Your task to perform on an android device: move an email to a new category in the gmail app Image 0: 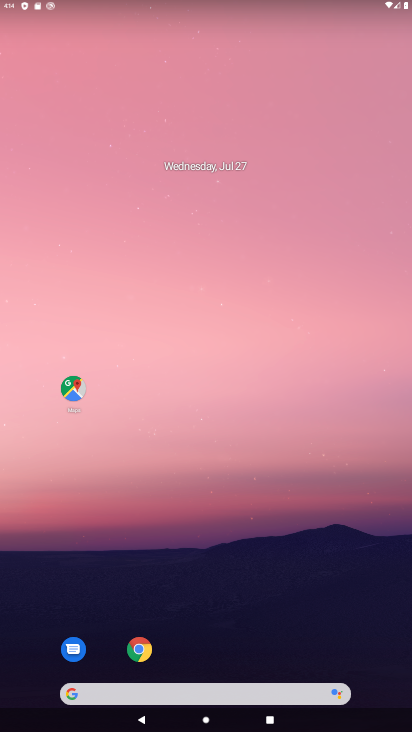
Step 0: drag from (205, 603) to (198, 295)
Your task to perform on an android device: move an email to a new category in the gmail app Image 1: 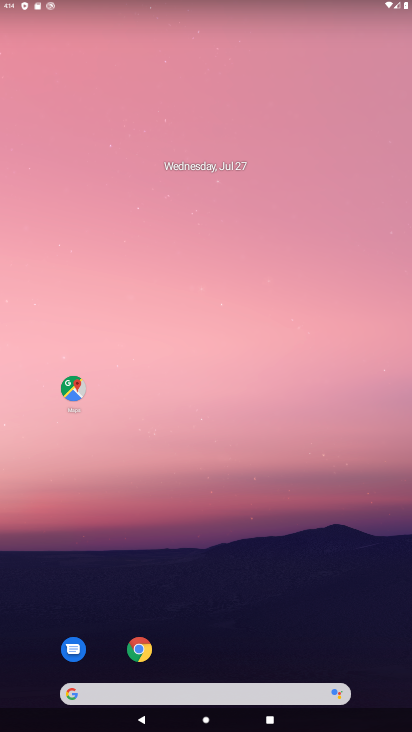
Step 1: drag from (205, 568) to (216, 70)
Your task to perform on an android device: move an email to a new category in the gmail app Image 2: 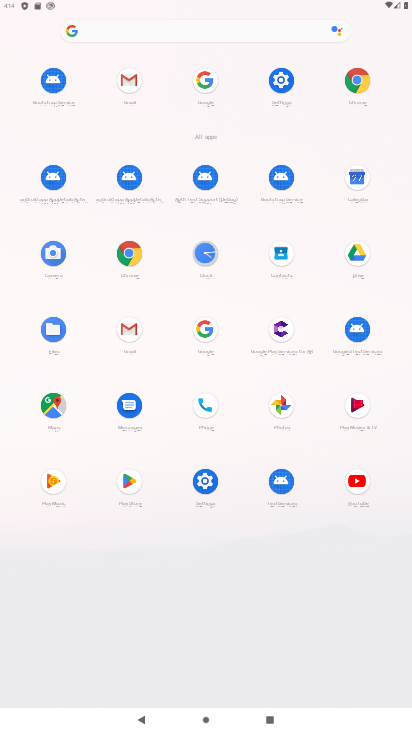
Step 2: click (128, 91)
Your task to perform on an android device: move an email to a new category in the gmail app Image 3: 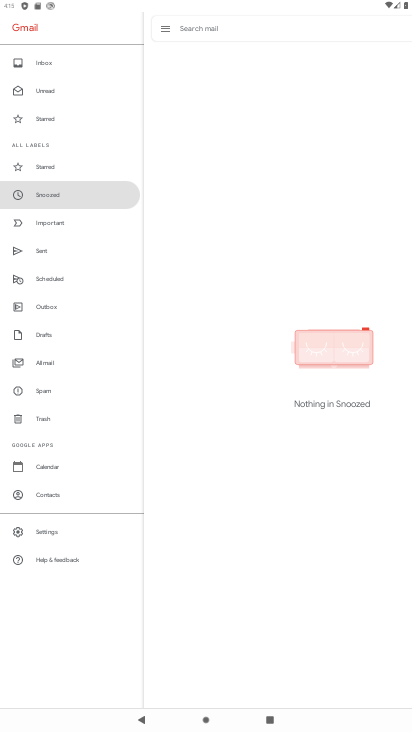
Step 3: click (46, 362)
Your task to perform on an android device: move an email to a new category in the gmail app Image 4: 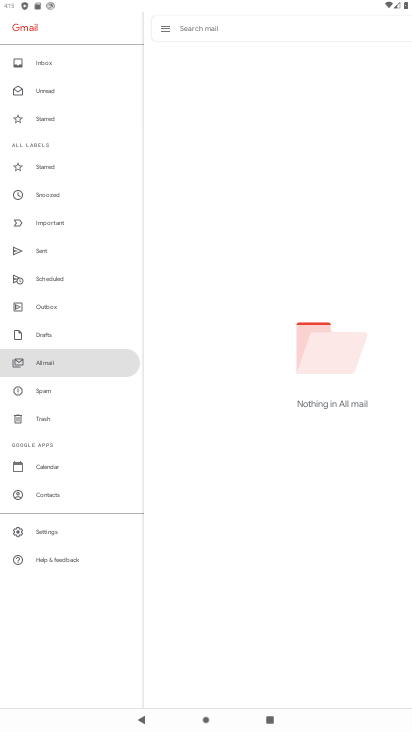
Step 4: task complete